Your task to perform on an android device: Go to battery settings Image 0: 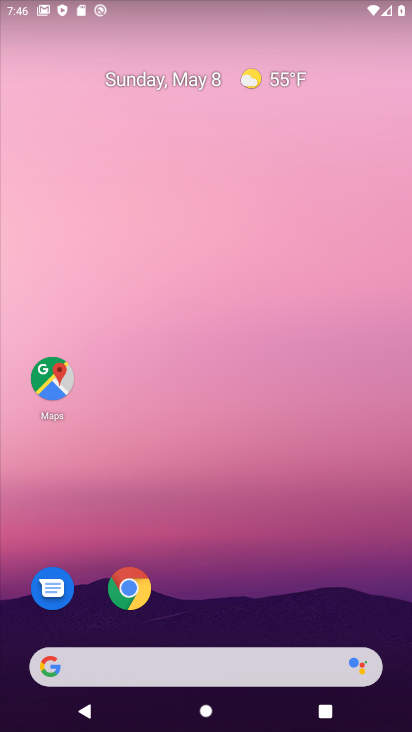
Step 0: drag from (330, 618) to (187, 31)
Your task to perform on an android device: Go to battery settings Image 1: 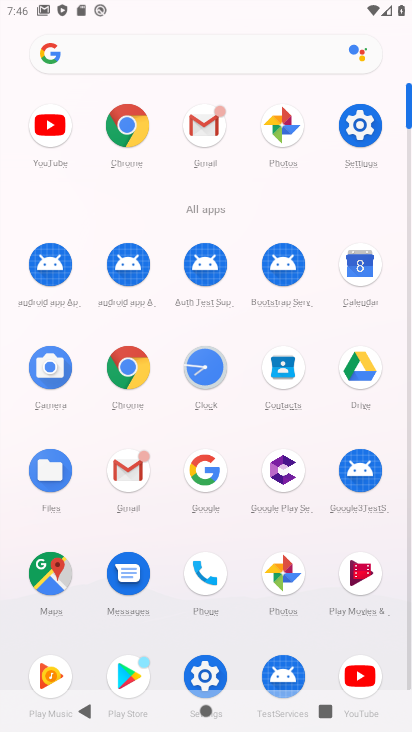
Step 1: click (353, 154)
Your task to perform on an android device: Go to battery settings Image 2: 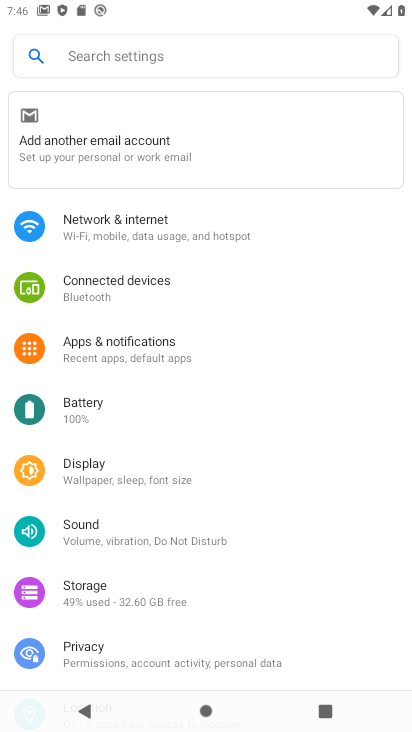
Step 2: click (113, 420)
Your task to perform on an android device: Go to battery settings Image 3: 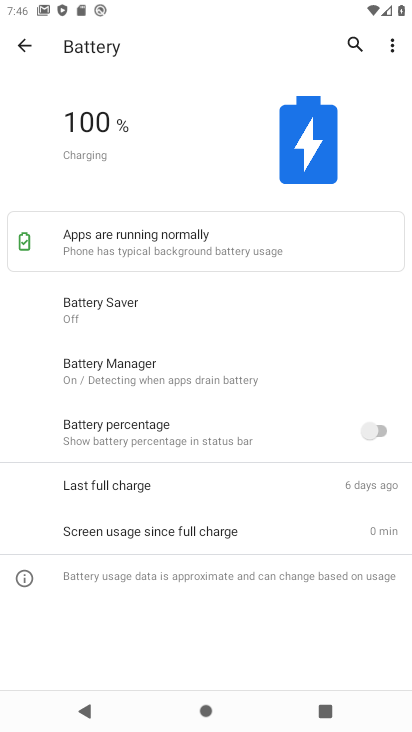
Step 3: task complete